Your task to perform on an android device: What's on my calendar tomorrow? Image 0: 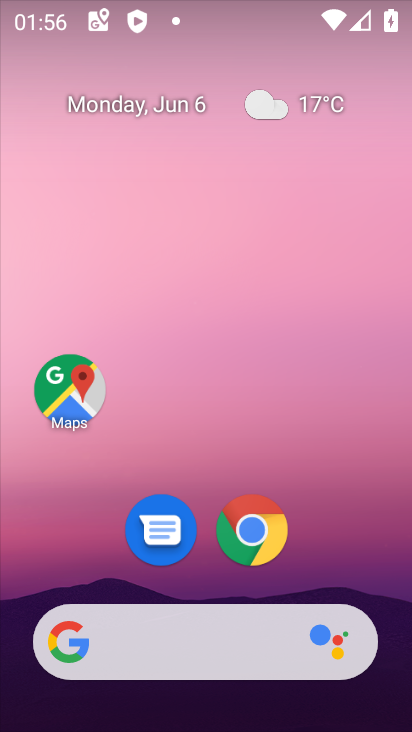
Step 0: drag from (324, 560) to (308, 236)
Your task to perform on an android device: What's on my calendar tomorrow? Image 1: 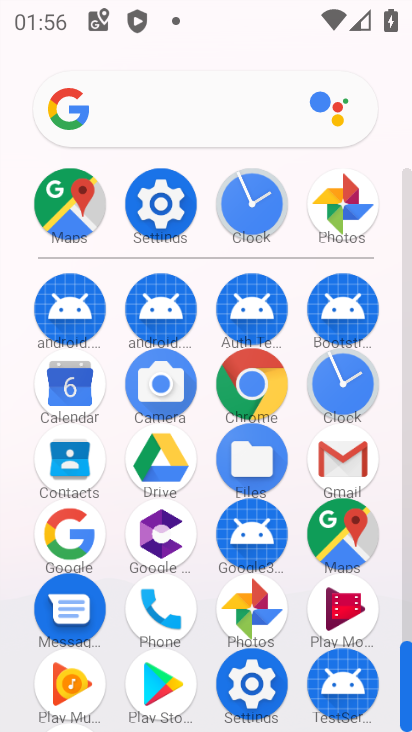
Step 1: click (58, 385)
Your task to perform on an android device: What's on my calendar tomorrow? Image 2: 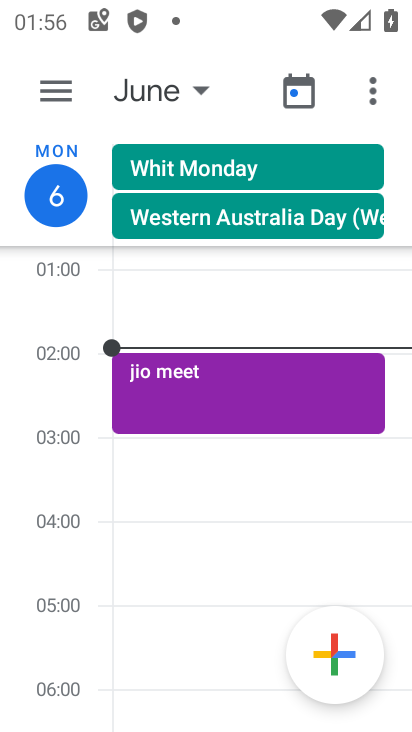
Step 2: drag from (174, 522) to (206, 224)
Your task to perform on an android device: What's on my calendar tomorrow? Image 3: 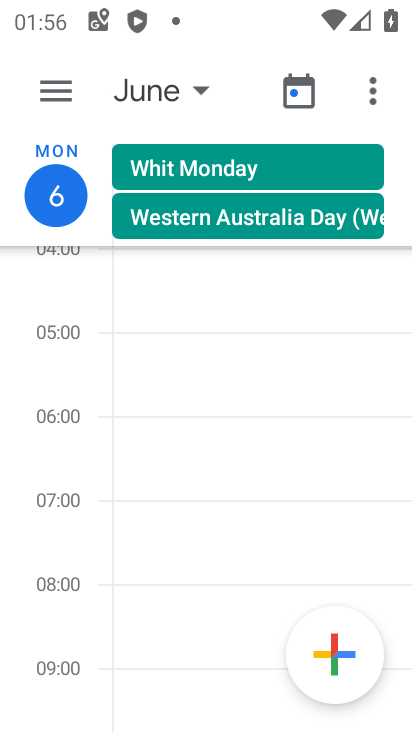
Step 3: drag from (201, 625) to (234, 286)
Your task to perform on an android device: What's on my calendar tomorrow? Image 4: 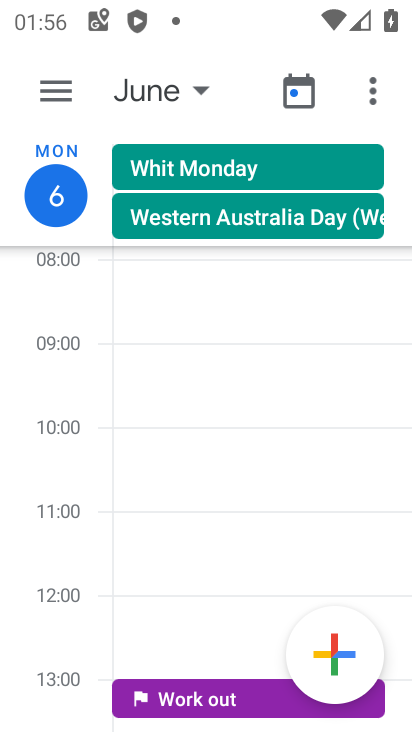
Step 4: drag from (225, 576) to (238, 257)
Your task to perform on an android device: What's on my calendar tomorrow? Image 5: 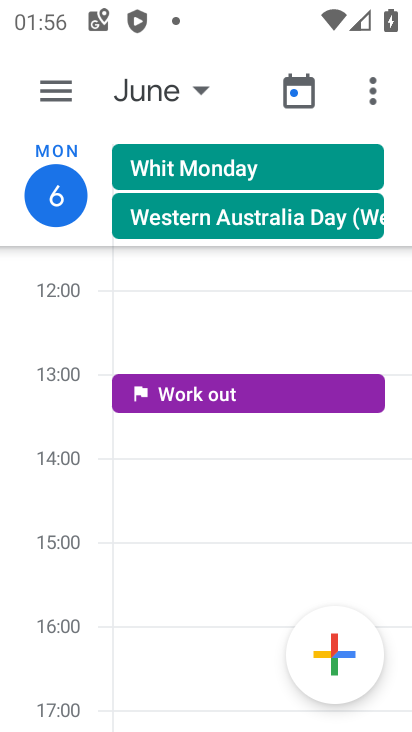
Step 5: drag from (226, 625) to (251, 249)
Your task to perform on an android device: What's on my calendar tomorrow? Image 6: 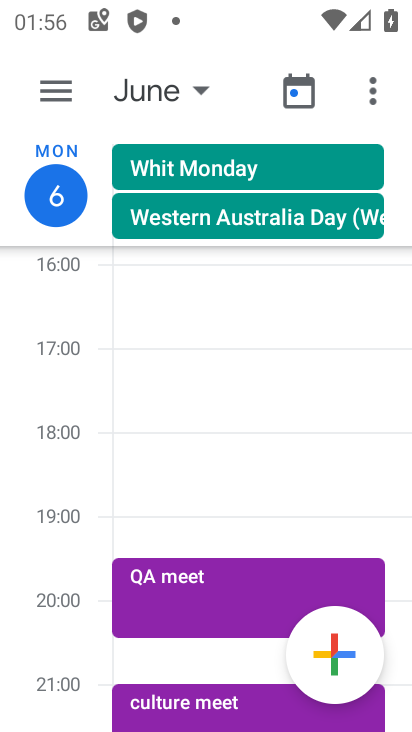
Step 6: drag from (224, 580) to (239, 287)
Your task to perform on an android device: What's on my calendar tomorrow? Image 7: 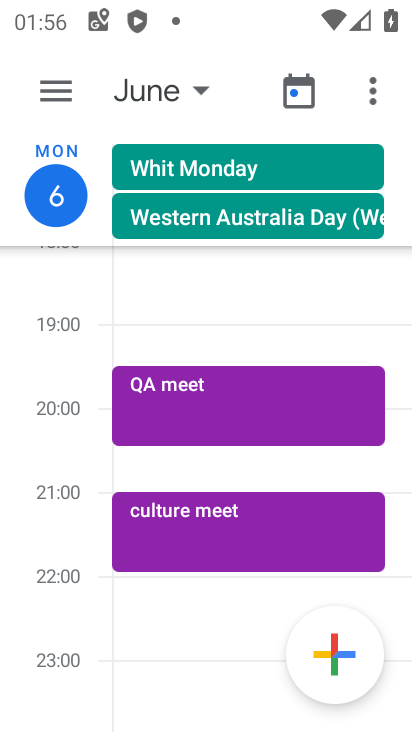
Step 7: click (55, 102)
Your task to perform on an android device: What's on my calendar tomorrow? Image 8: 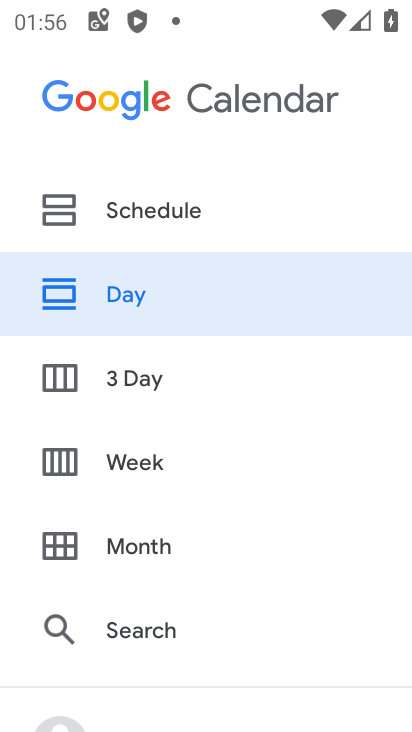
Step 8: click (134, 391)
Your task to perform on an android device: What's on my calendar tomorrow? Image 9: 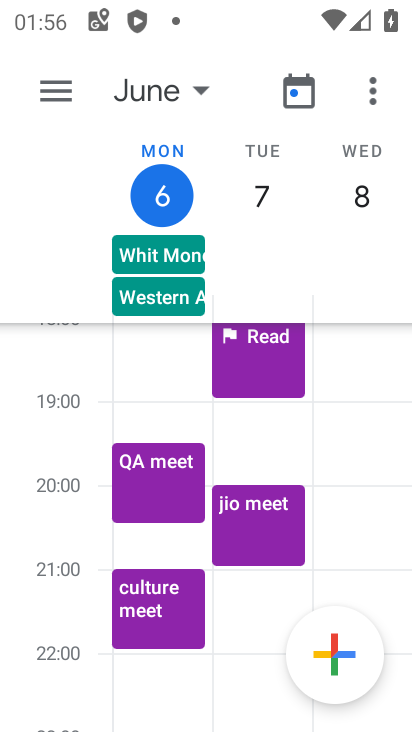
Step 9: click (282, 207)
Your task to perform on an android device: What's on my calendar tomorrow? Image 10: 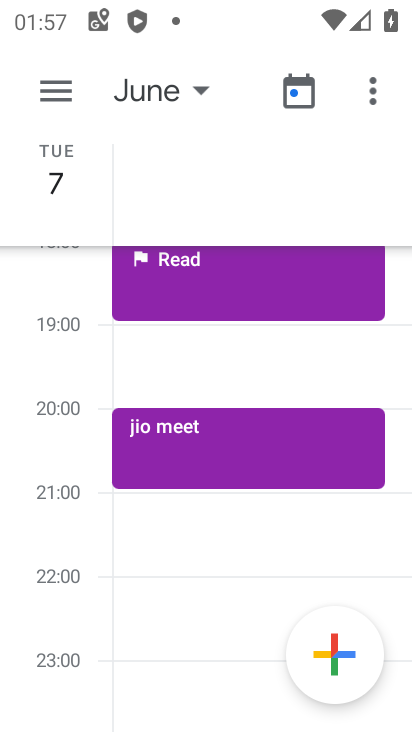
Step 10: task complete